Your task to perform on an android device: toggle pop-ups in chrome Image 0: 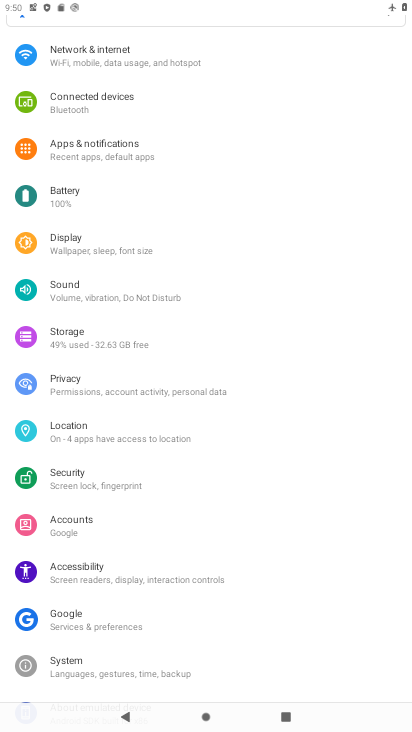
Step 0: press home button
Your task to perform on an android device: toggle pop-ups in chrome Image 1: 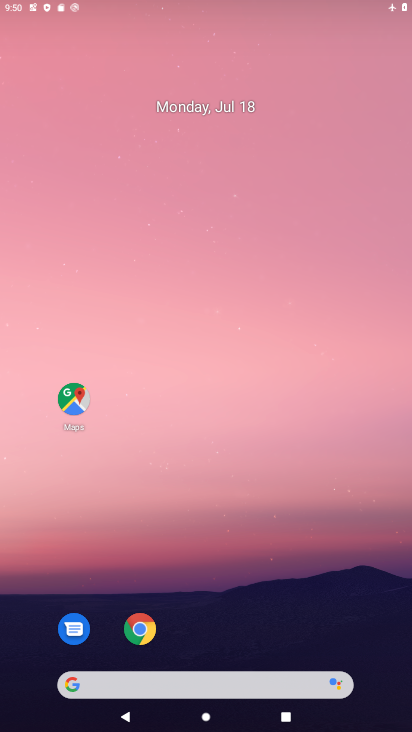
Step 1: drag from (261, 614) to (150, 137)
Your task to perform on an android device: toggle pop-ups in chrome Image 2: 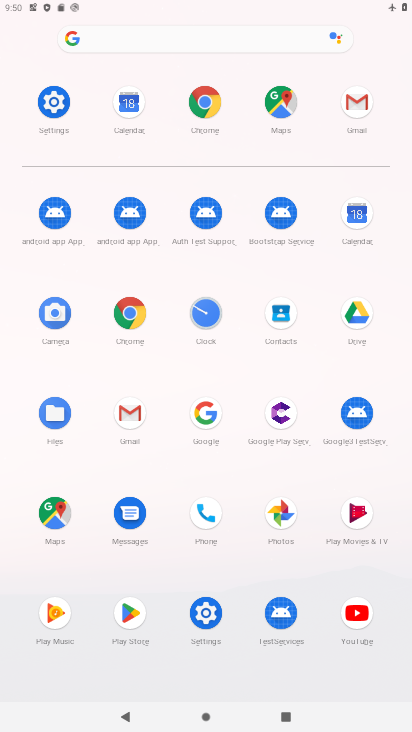
Step 2: click (129, 315)
Your task to perform on an android device: toggle pop-ups in chrome Image 3: 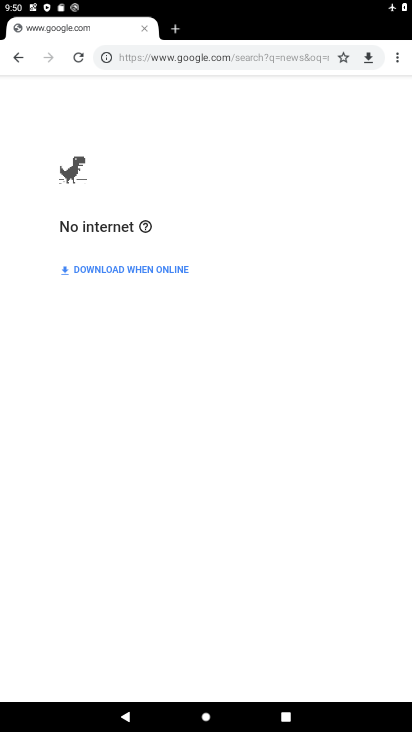
Step 3: drag from (396, 50) to (291, 384)
Your task to perform on an android device: toggle pop-ups in chrome Image 4: 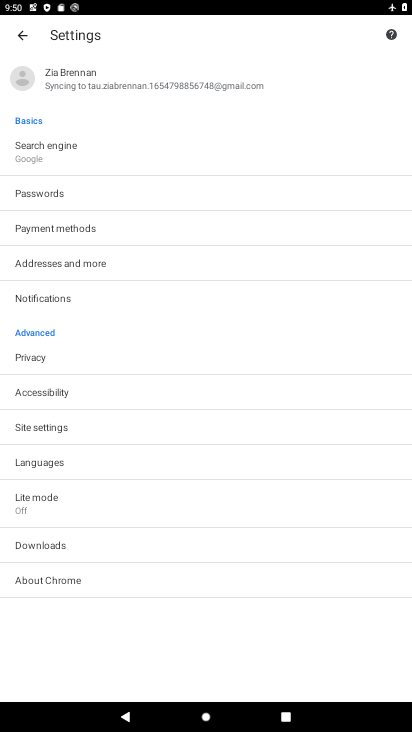
Step 4: click (52, 424)
Your task to perform on an android device: toggle pop-ups in chrome Image 5: 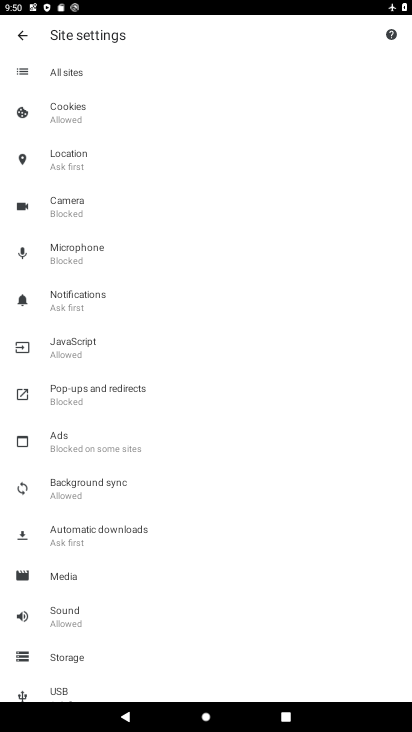
Step 5: click (81, 397)
Your task to perform on an android device: toggle pop-ups in chrome Image 6: 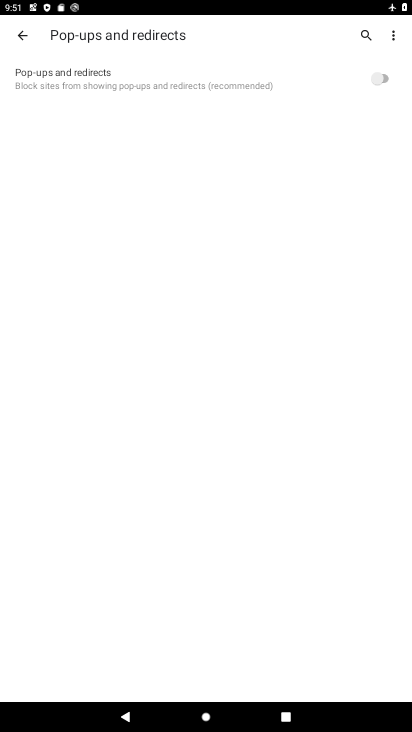
Step 6: click (376, 86)
Your task to perform on an android device: toggle pop-ups in chrome Image 7: 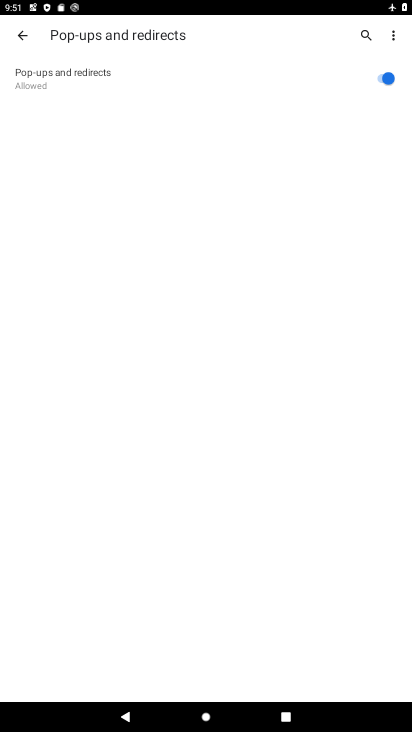
Step 7: task complete